Your task to perform on an android device: Open the phone app and click the voicemail tab. Image 0: 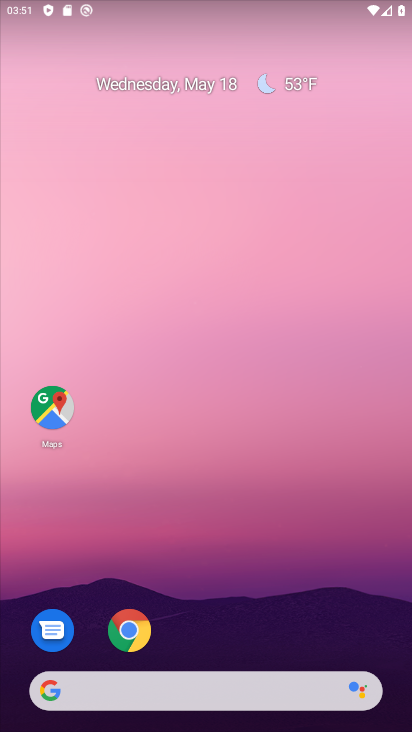
Step 0: drag from (188, 725) to (215, 109)
Your task to perform on an android device: Open the phone app and click the voicemail tab. Image 1: 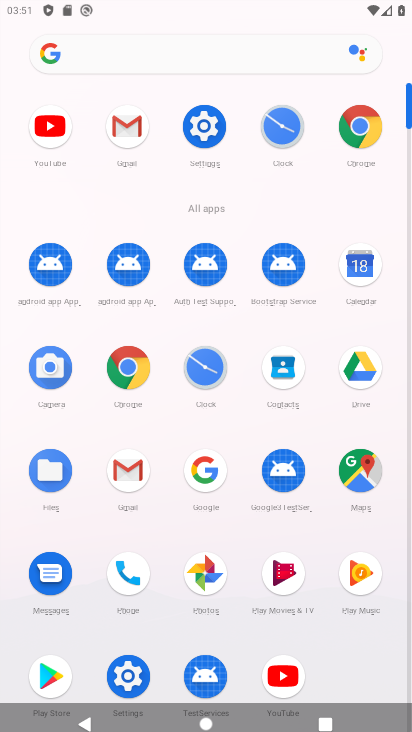
Step 1: click (129, 575)
Your task to perform on an android device: Open the phone app and click the voicemail tab. Image 2: 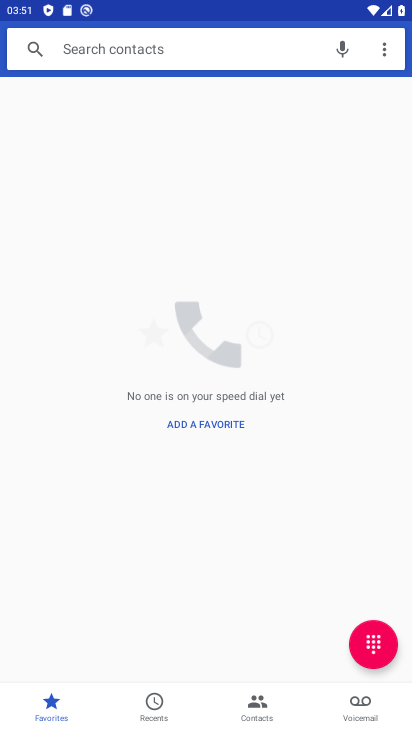
Step 2: click (363, 701)
Your task to perform on an android device: Open the phone app and click the voicemail tab. Image 3: 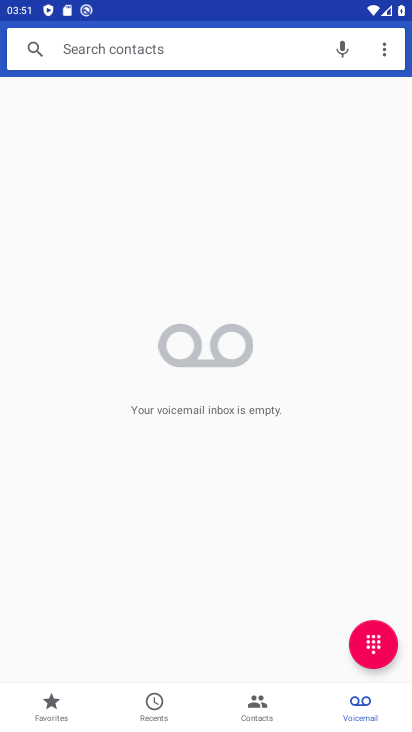
Step 3: task complete